Your task to perform on an android device: turn pop-ups on in chrome Image 0: 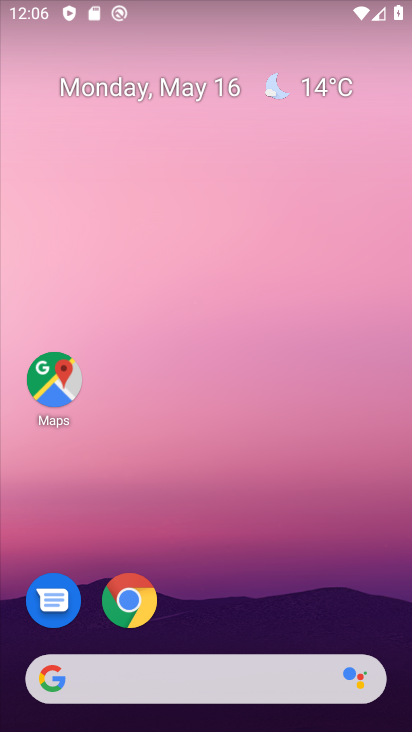
Step 0: click (123, 595)
Your task to perform on an android device: turn pop-ups on in chrome Image 1: 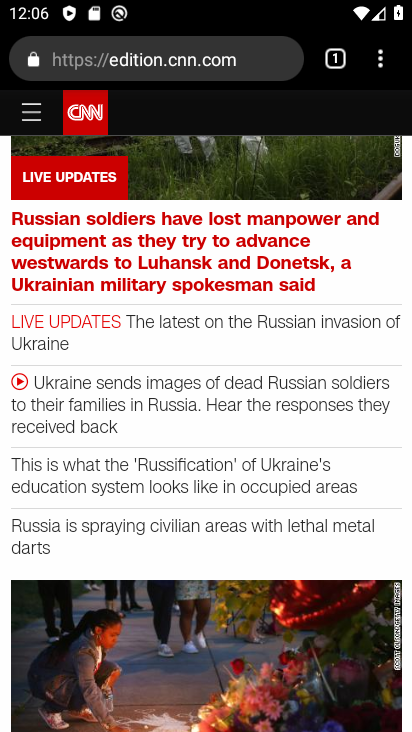
Step 1: click (377, 59)
Your task to perform on an android device: turn pop-ups on in chrome Image 2: 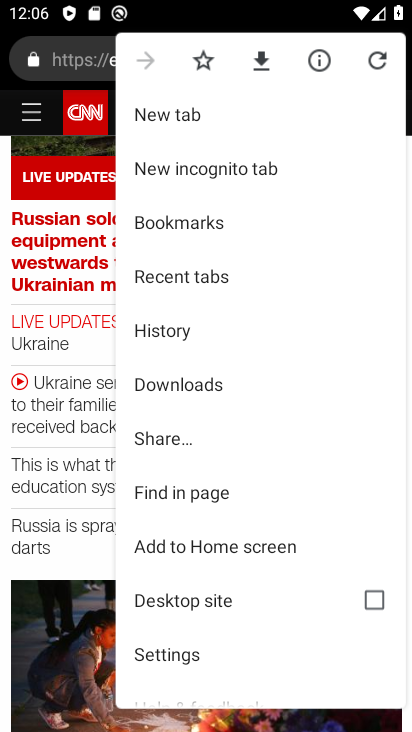
Step 2: click (213, 654)
Your task to perform on an android device: turn pop-ups on in chrome Image 3: 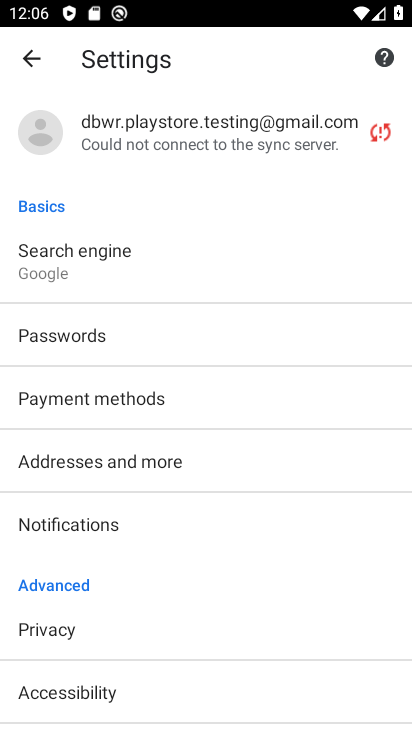
Step 3: drag from (218, 649) to (242, 135)
Your task to perform on an android device: turn pop-ups on in chrome Image 4: 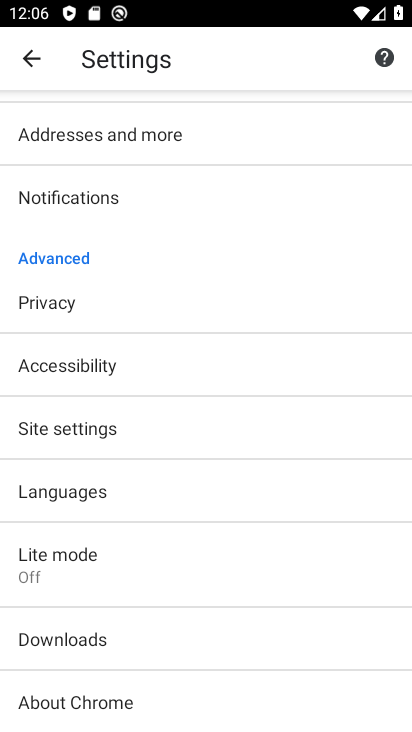
Step 4: click (152, 429)
Your task to perform on an android device: turn pop-ups on in chrome Image 5: 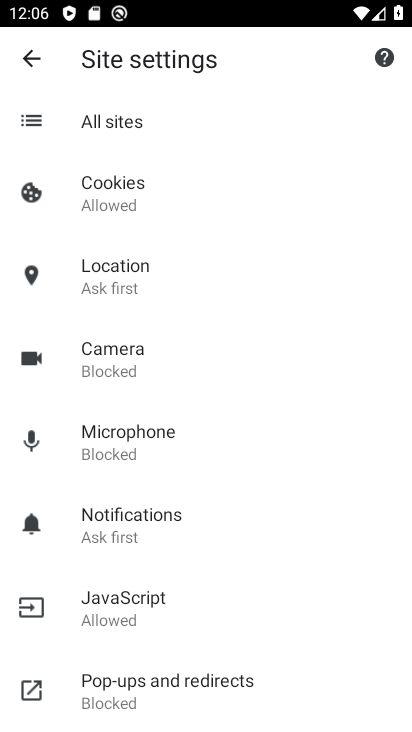
Step 5: click (207, 690)
Your task to perform on an android device: turn pop-ups on in chrome Image 6: 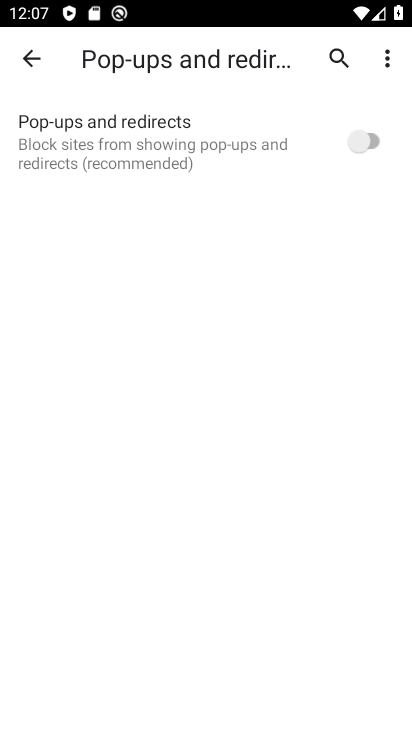
Step 6: click (372, 133)
Your task to perform on an android device: turn pop-ups on in chrome Image 7: 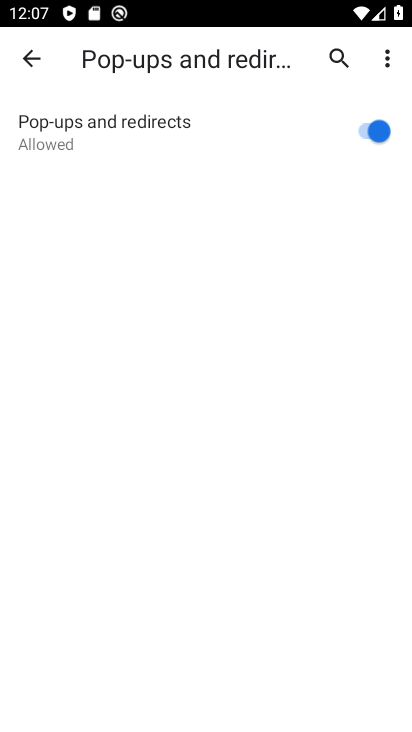
Step 7: task complete